Your task to perform on an android device: make emails show in primary in the gmail app Image 0: 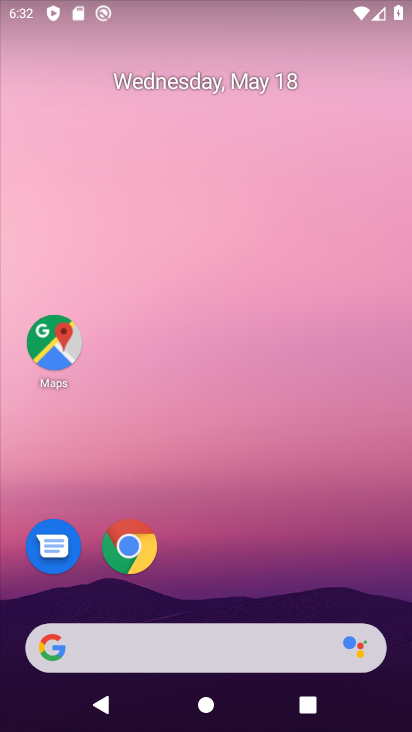
Step 0: drag from (329, 597) to (291, 269)
Your task to perform on an android device: make emails show in primary in the gmail app Image 1: 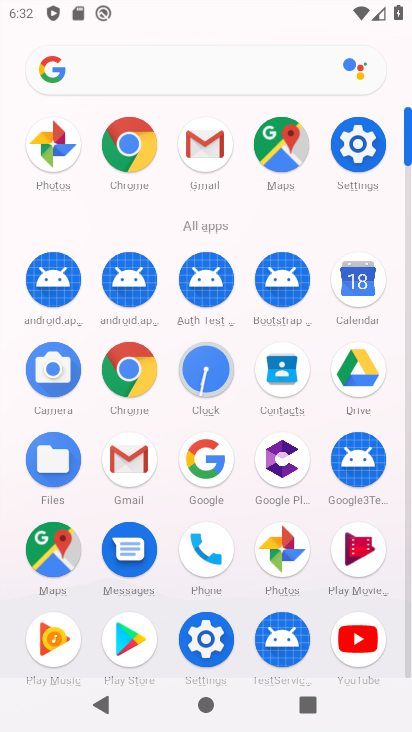
Step 1: click (124, 472)
Your task to perform on an android device: make emails show in primary in the gmail app Image 2: 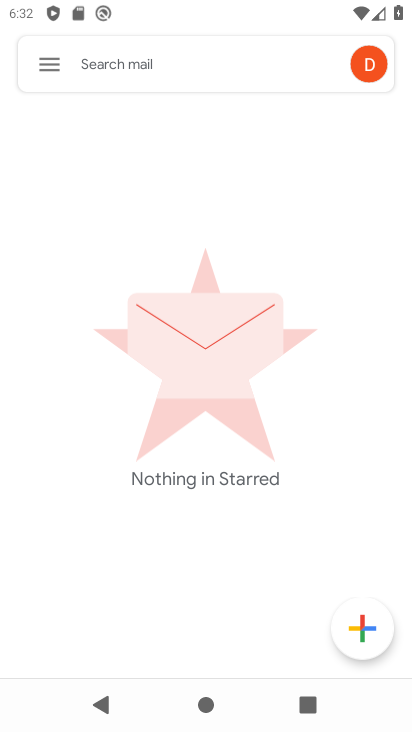
Step 2: click (37, 64)
Your task to perform on an android device: make emails show in primary in the gmail app Image 3: 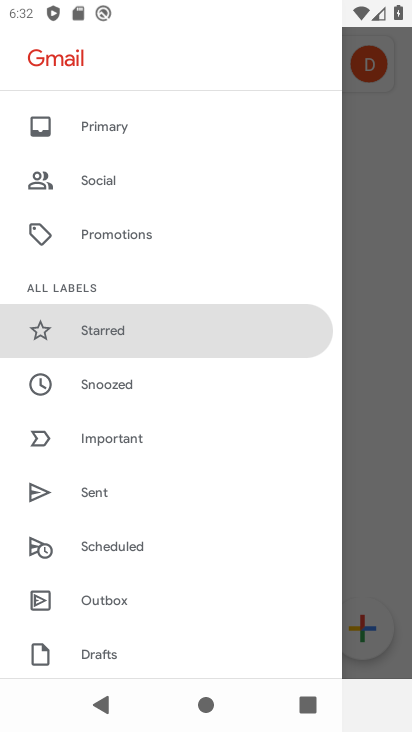
Step 3: click (136, 130)
Your task to perform on an android device: make emails show in primary in the gmail app Image 4: 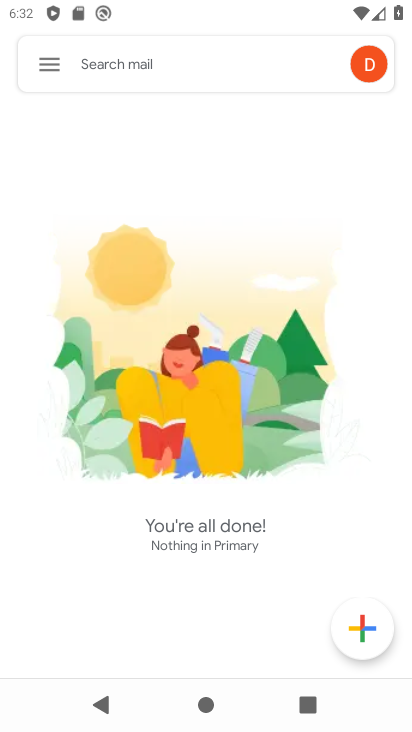
Step 4: task complete